Your task to perform on an android device: toggle airplane mode Image 0: 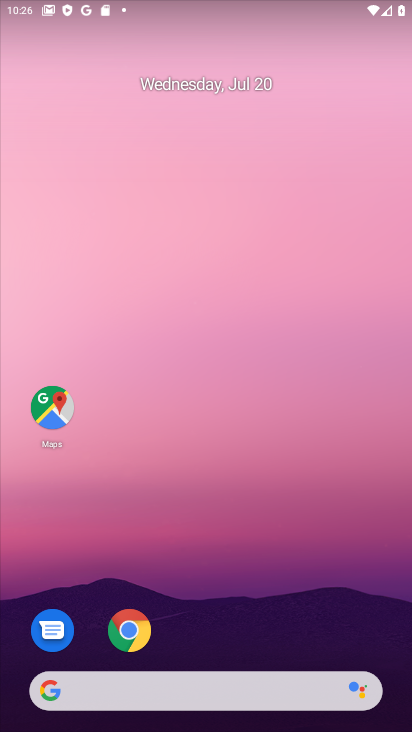
Step 0: click (298, 118)
Your task to perform on an android device: toggle airplane mode Image 1: 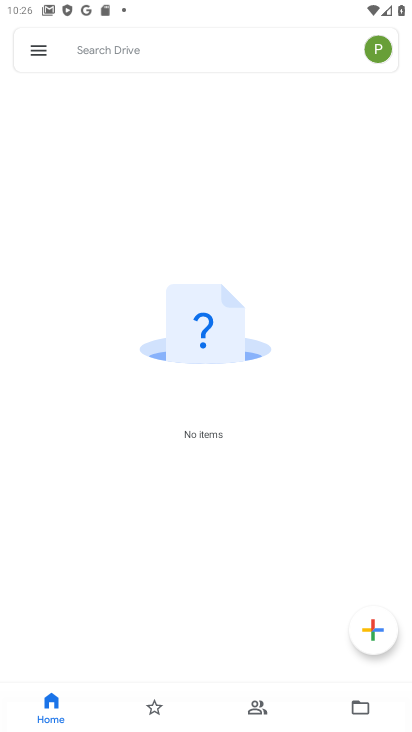
Step 1: press home button
Your task to perform on an android device: toggle airplane mode Image 2: 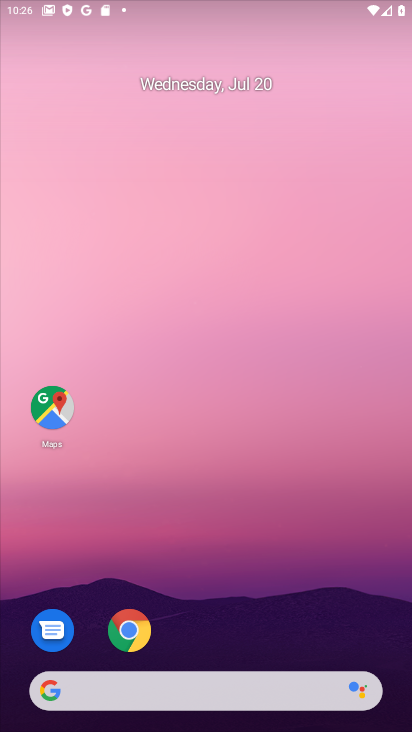
Step 2: click (144, 620)
Your task to perform on an android device: toggle airplane mode Image 3: 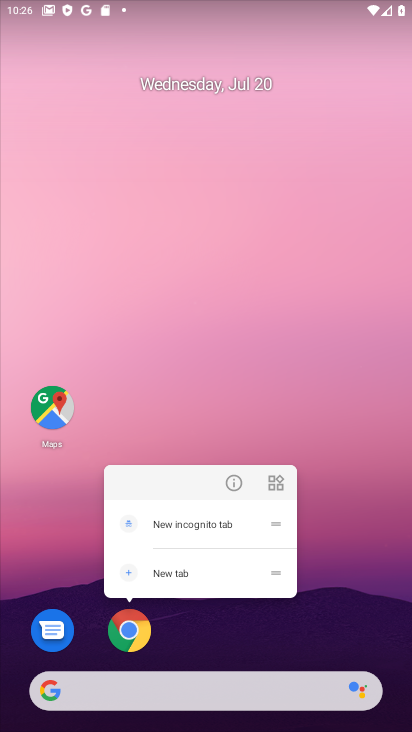
Step 3: click (231, 486)
Your task to perform on an android device: toggle airplane mode Image 4: 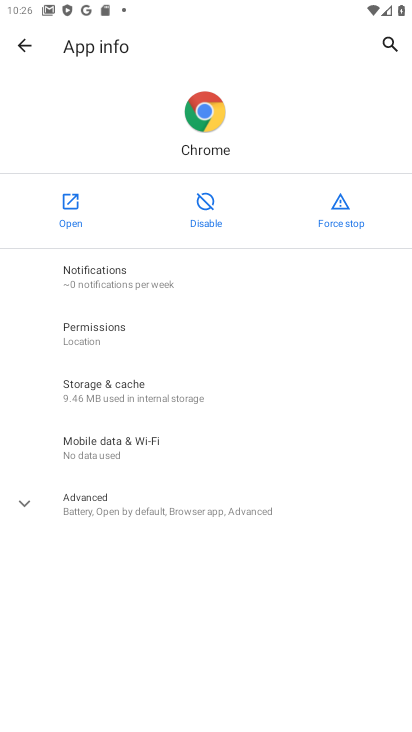
Step 4: click (86, 203)
Your task to perform on an android device: toggle airplane mode Image 5: 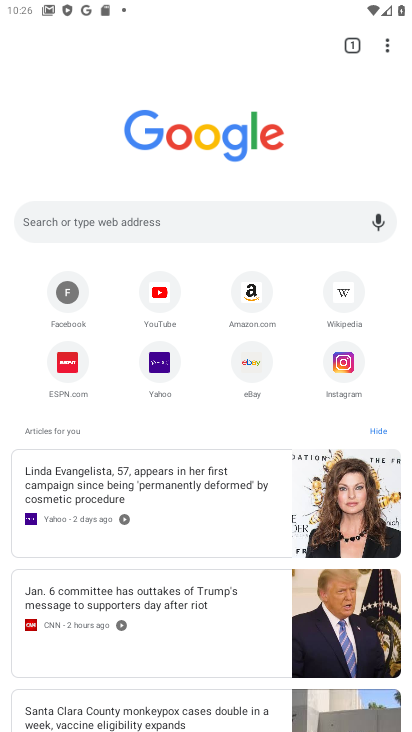
Step 5: press home button
Your task to perform on an android device: toggle airplane mode Image 6: 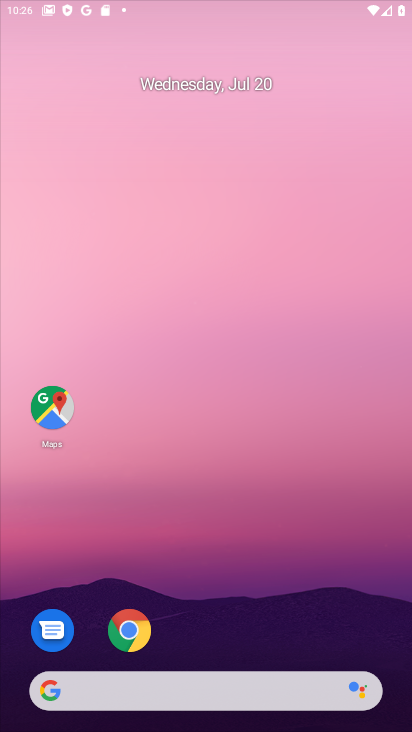
Step 6: drag from (176, 578) to (271, 72)
Your task to perform on an android device: toggle airplane mode Image 7: 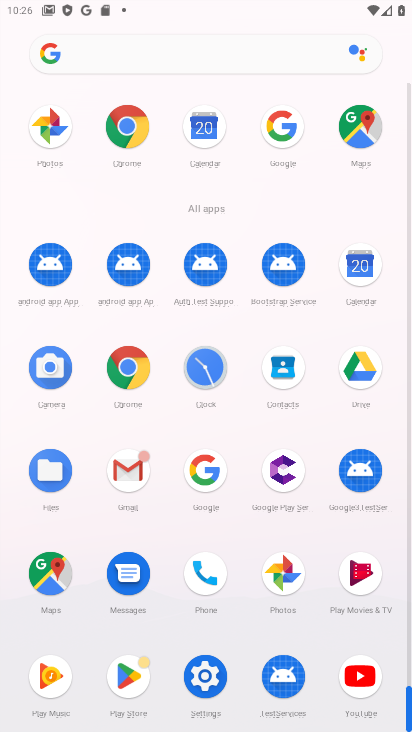
Step 7: click (205, 671)
Your task to perform on an android device: toggle airplane mode Image 8: 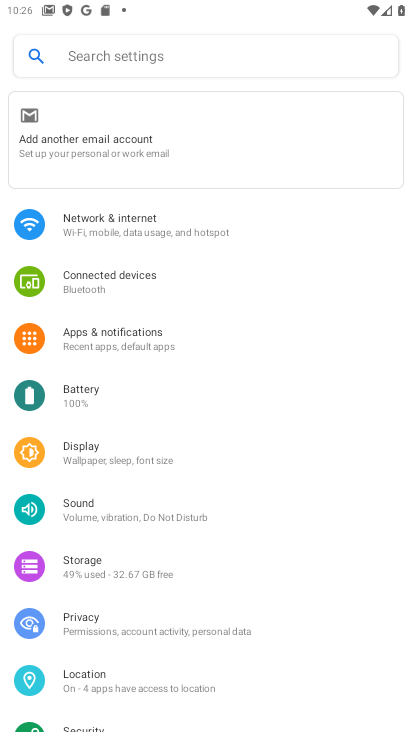
Step 8: click (127, 220)
Your task to perform on an android device: toggle airplane mode Image 9: 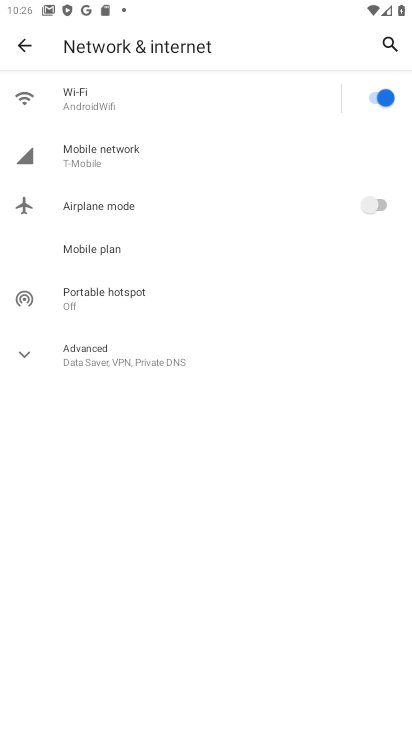
Step 9: click (252, 213)
Your task to perform on an android device: toggle airplane mode Image 10: 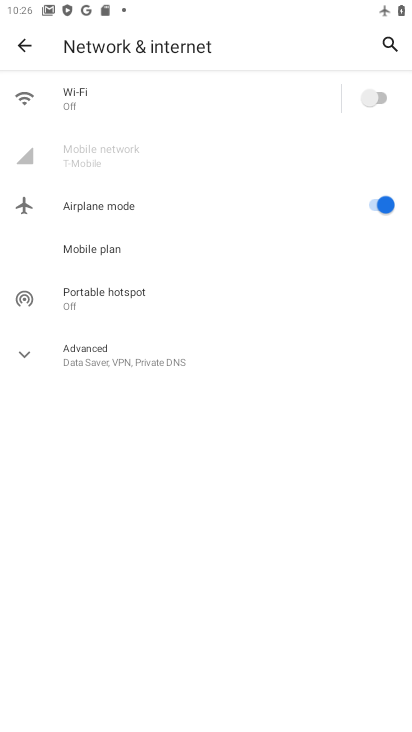
Step 10: task complete